Your task to perform on an android device: check android version Image 0: 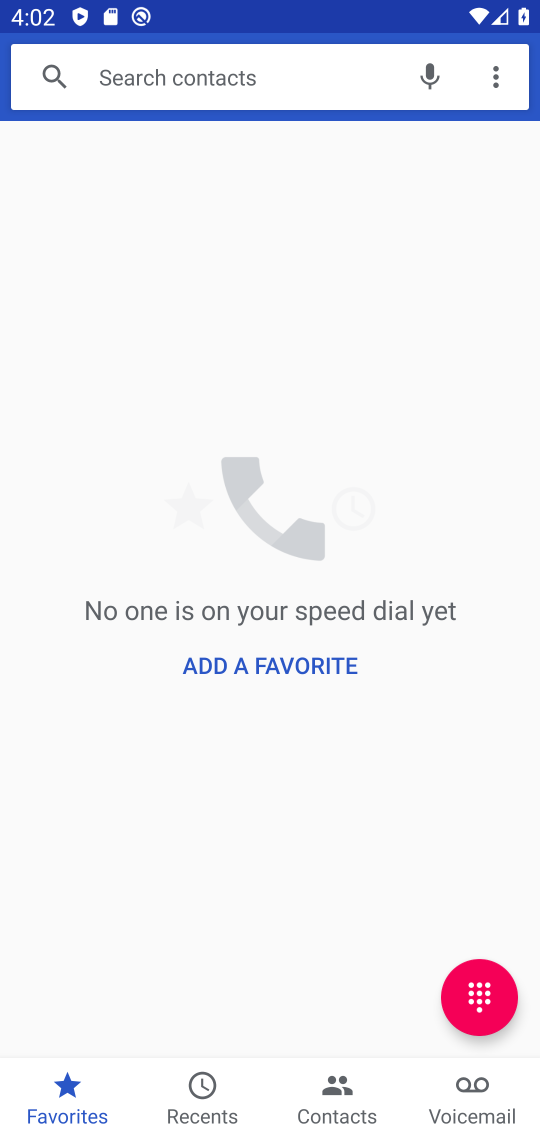
Step 0: press home button
Your task to perform on an android device: check android version Image 1: 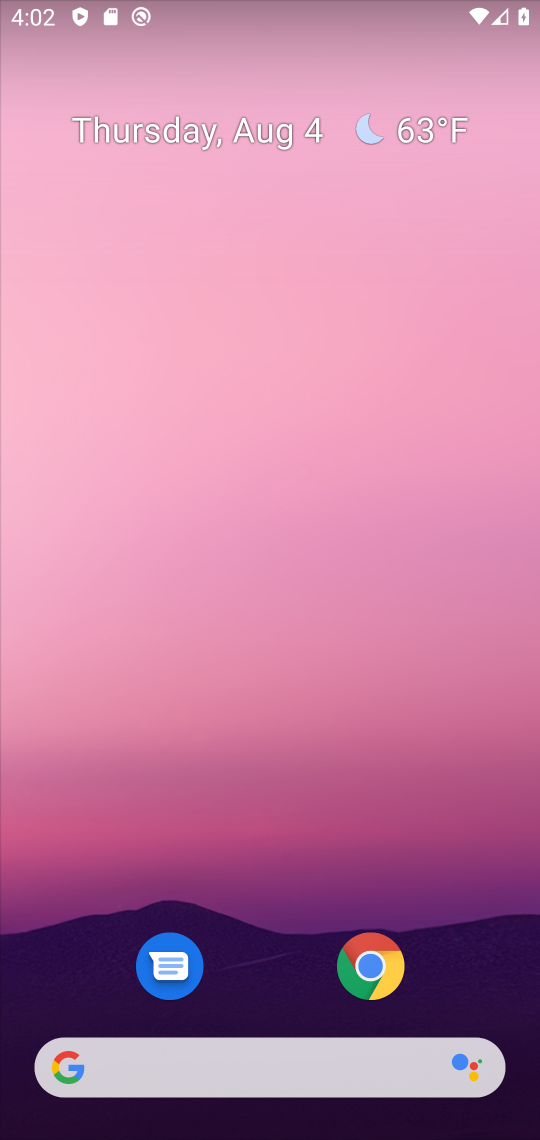
Step 1: drag from (400, 1002) to (355, 3)
Your task to perform on an android device: check android version Image 2: 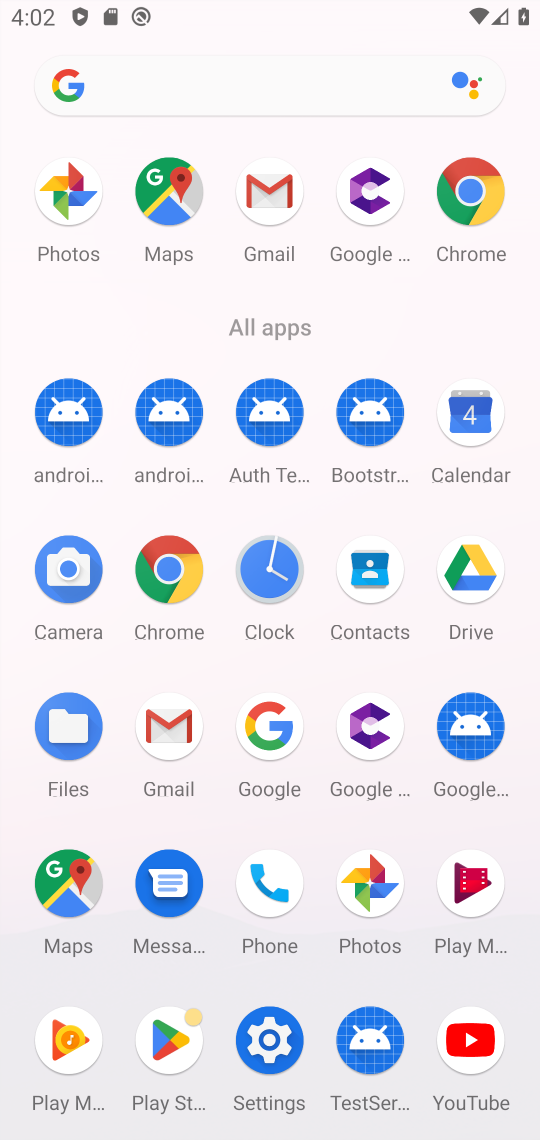
Step 2: click (264, 1050)
Your task to perform on an android device: check android version Image 3: 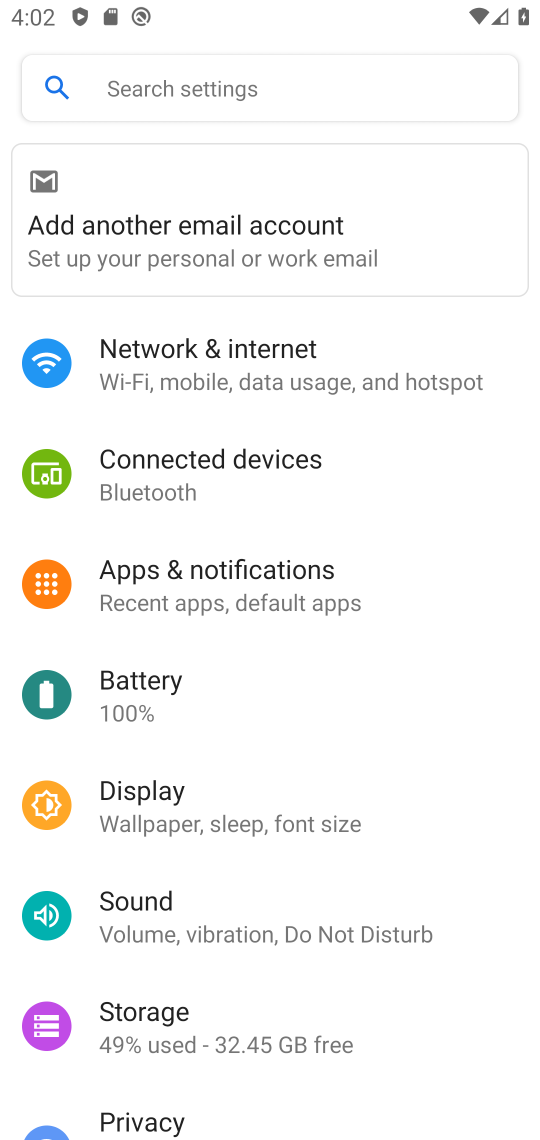
Step 3: drag from (236, 972) to (393, 266)
Your task to perform on an android device: check android version Image 4: 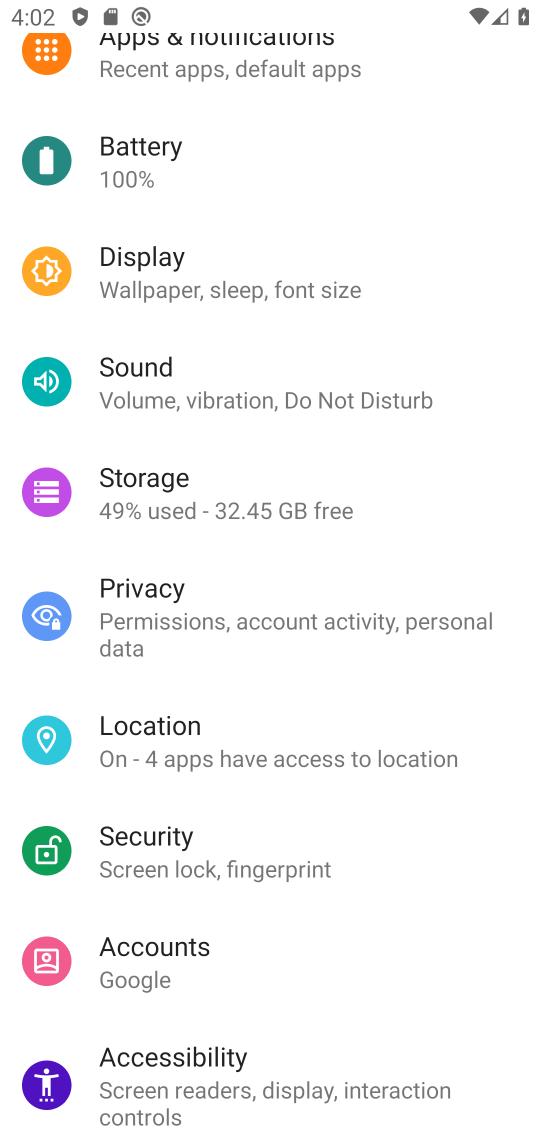
Step 4: drag from (201, 915) to (279, 219)
Your task to perform on an android device: check android version Image 5: 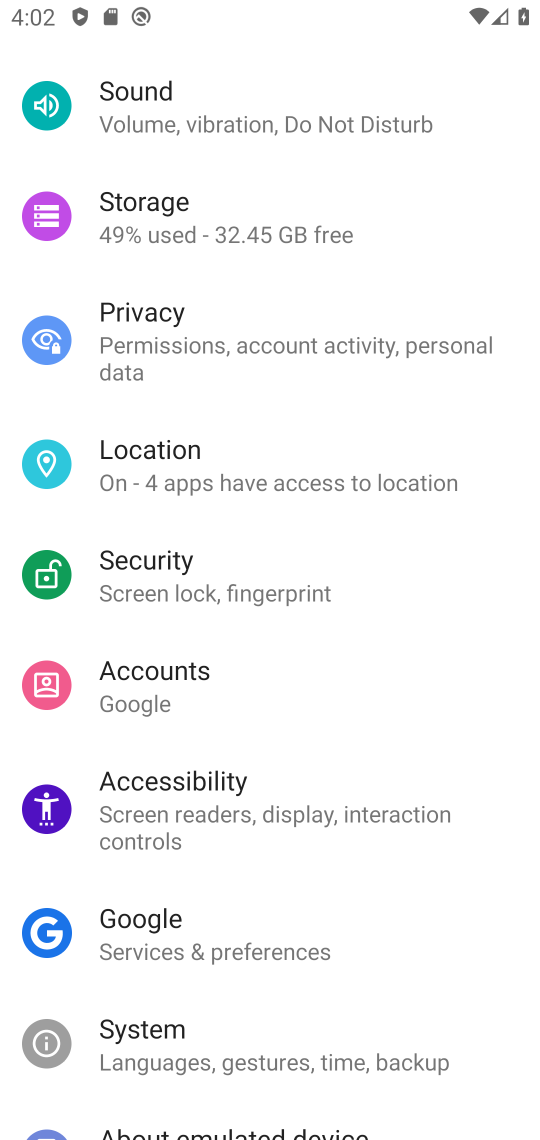
Step 5: drag from (253, 1000) to (242, 183)
Your task to perform on an android device: check android version Image 6: 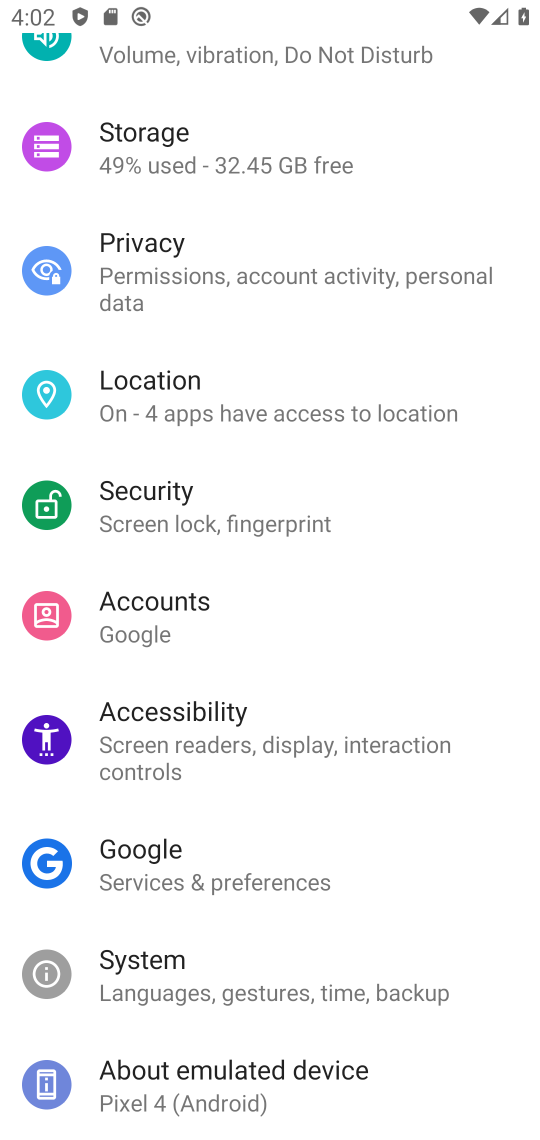
Step 6: click (221, 1095)
Your task to perform on an android device: check android version Image 7: 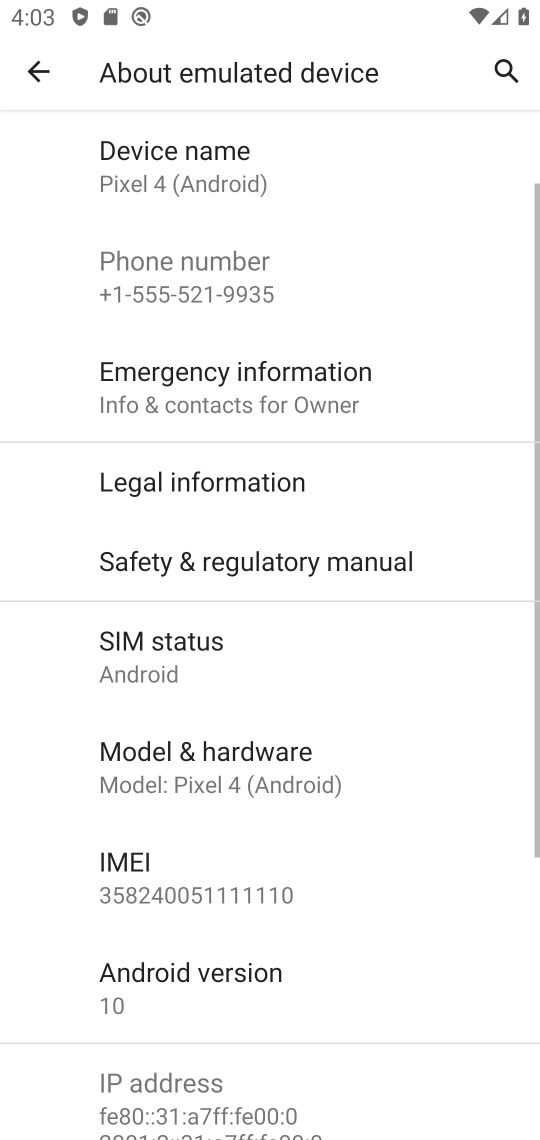
Step 7: click (161, 1016)
Your task to perform on an android device: check android version Image 8: 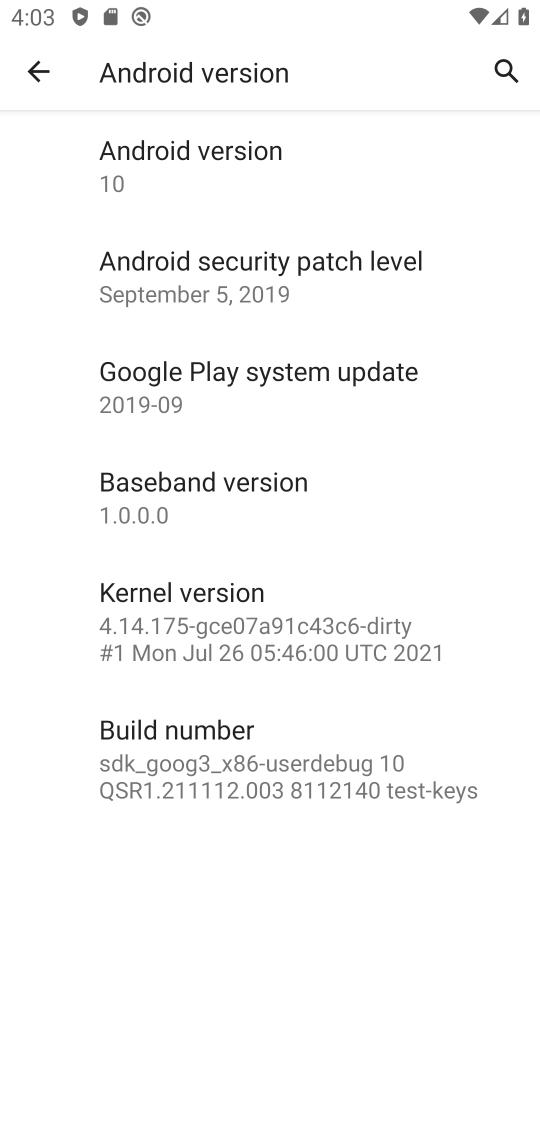
Step 8: click (170, 186)
Your task to perform on an android device: check android version Image 9: 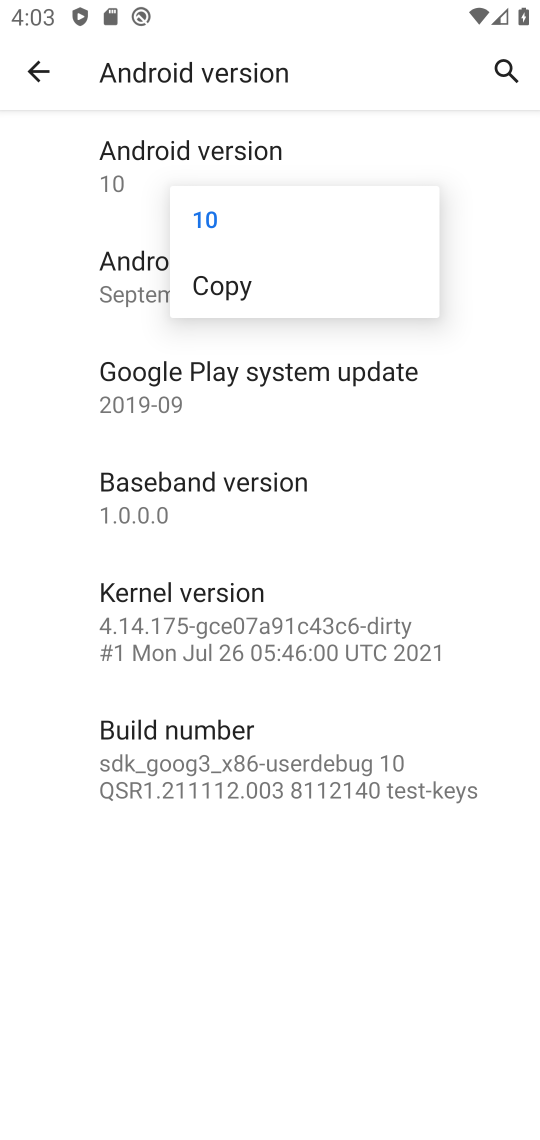
Step 9: task complete